Your task to perform on an android device: What is the news today? Image 0: 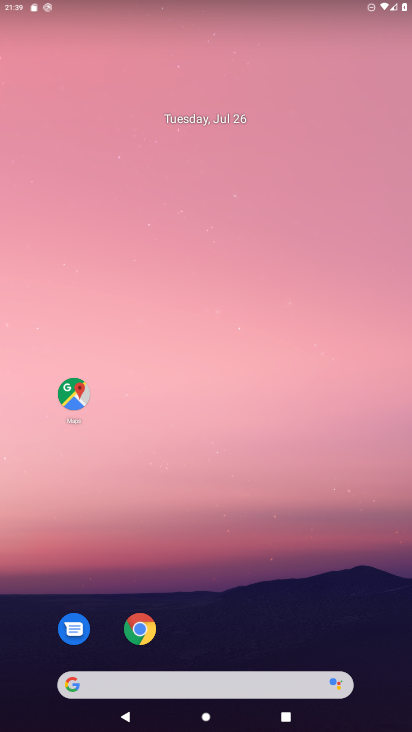
Step 0: click (148, 617)
Your task to perform on an android device: What is the news today? Image 1: 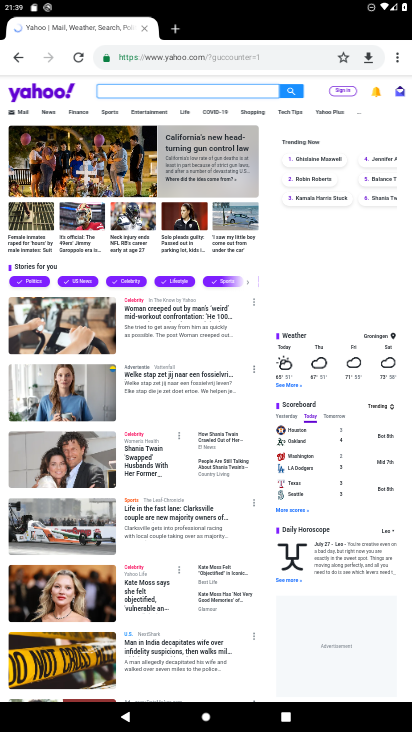
Step 1: click (162, 55)
Your task to perform on an android device: What is the news today? Image 2: 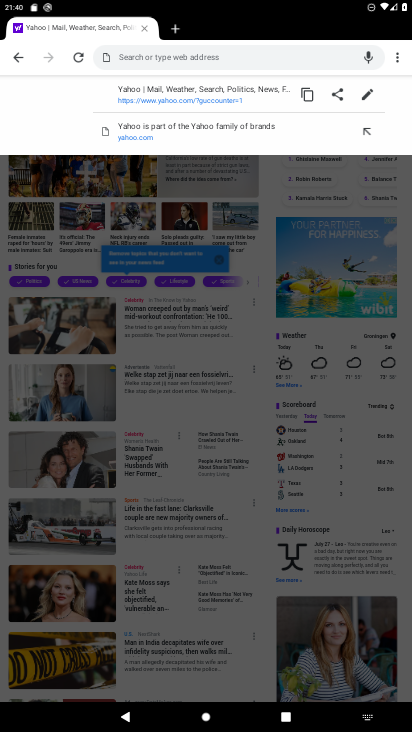
Step 2: type "What is the news today?"
Your task to perform on an android device: What is the news today? Image 3: 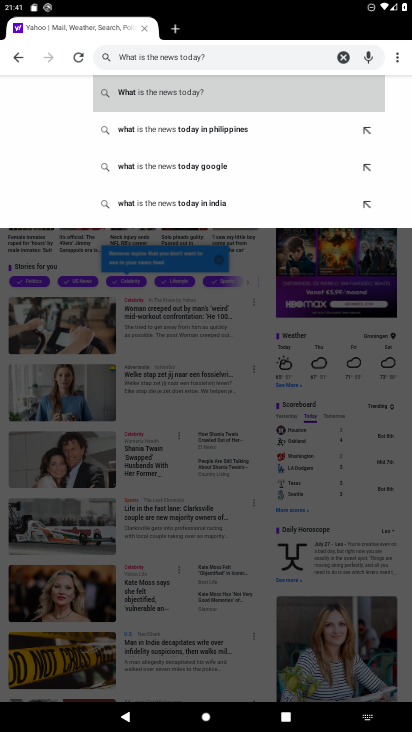
Step 3: click (142, 86)
Your task to perform on an android device: What is the news today? Image 4: 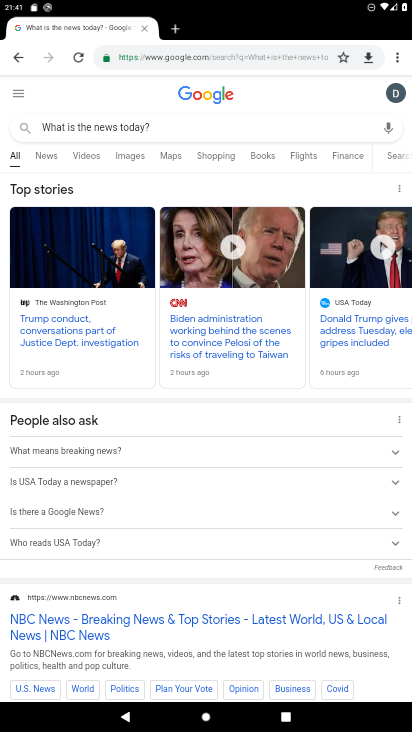
Step 4: task complete